Your task to perform on an android device: change alarm snooze length Image 0: 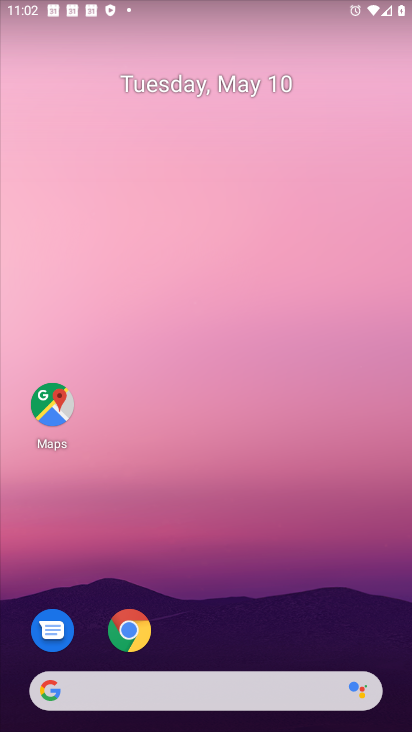
Step 0: drag from (236, 731) to (279, 5)
Your task to perform on an android device: change alarm snooze length Image 1: 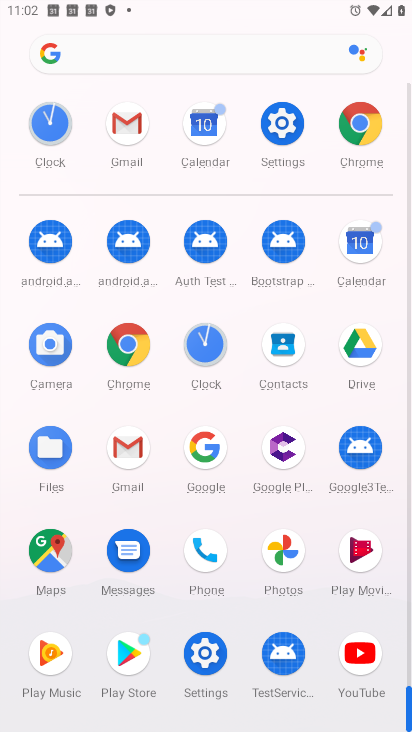
Step 1: click (207, 354)
Your task to perform on an android device: change alarm snooze length Image 2: 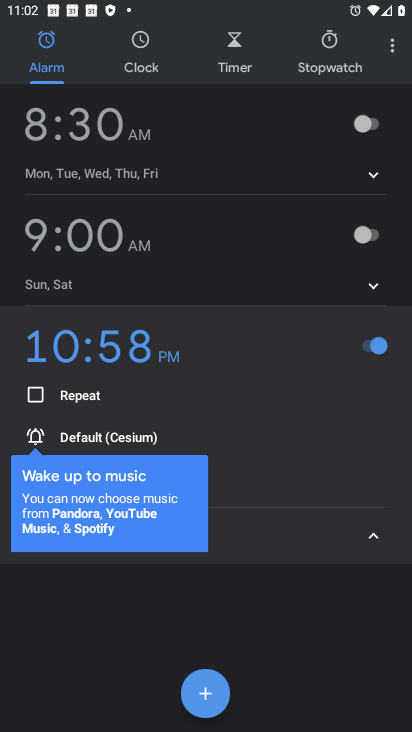
Step 2: click (389, 44)
Your task to perform on an android device: change alarm snooze length Image 3: 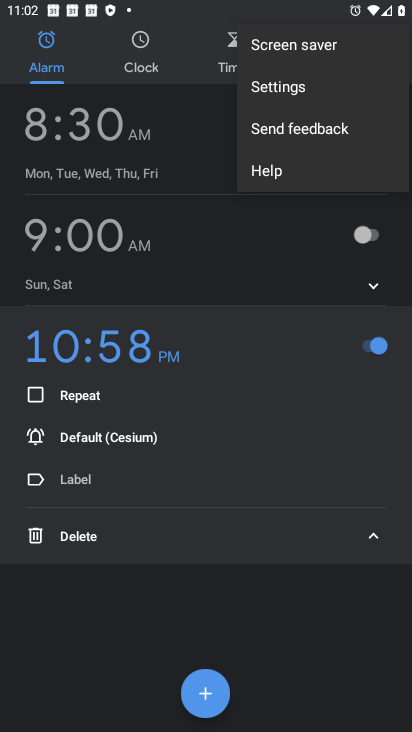
Step 3: click (314, 92)
Your task to perform on an android device: change alarm snooze length Image 4: 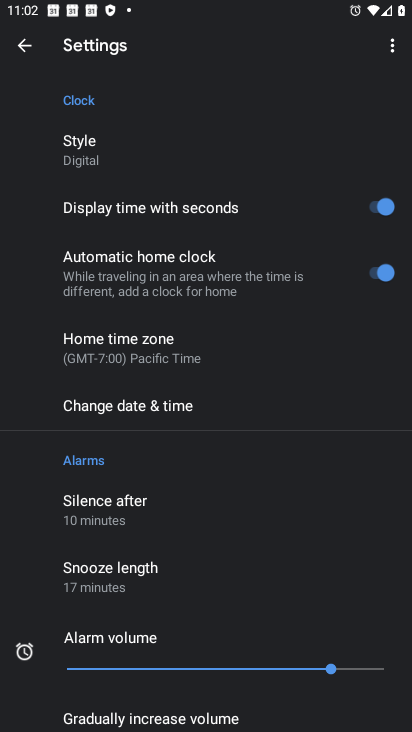
Step 4: click (164, 572)
Your task to perform on an android device: change alarm snooze length Image 5: 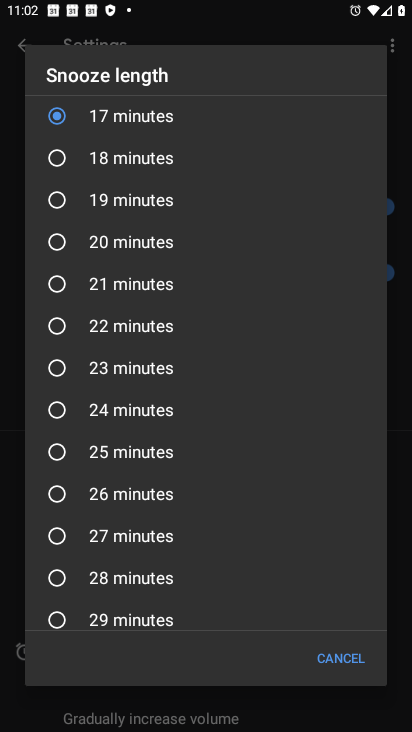
Step 5: click (126, 514)
Your task to perform on an android device: change alarm snooze length Image 6: 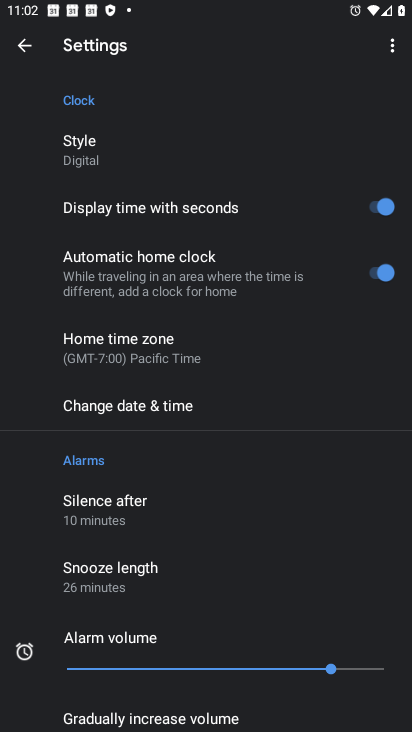
Step 6: task complete